Your task to perform on an android device: Open maps Image 0: 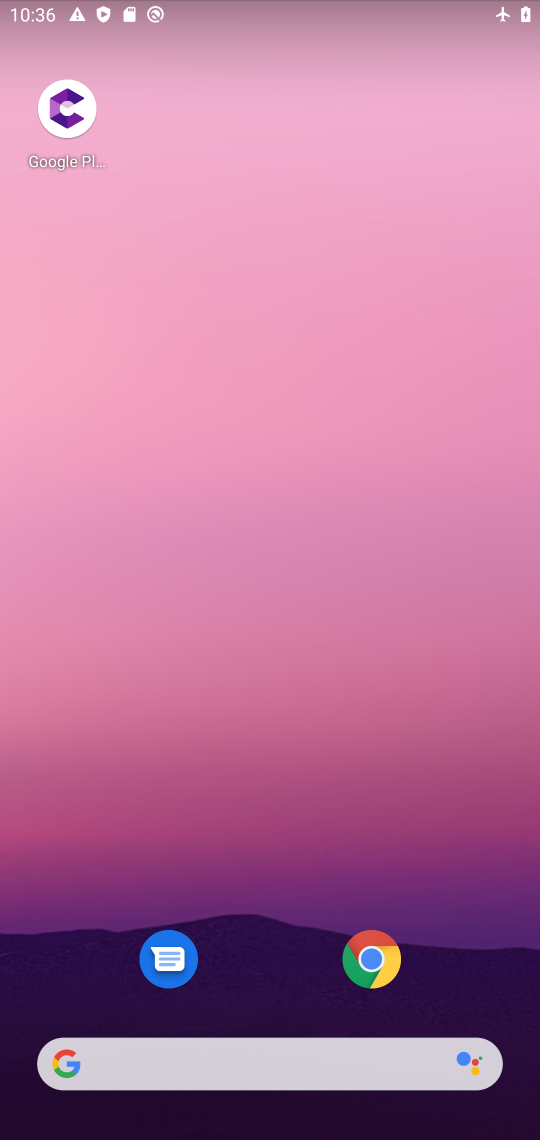
Step 0: drag from (277, 1065) to (206, 286)
Your task to perform on an android device: Open maps Image 1: 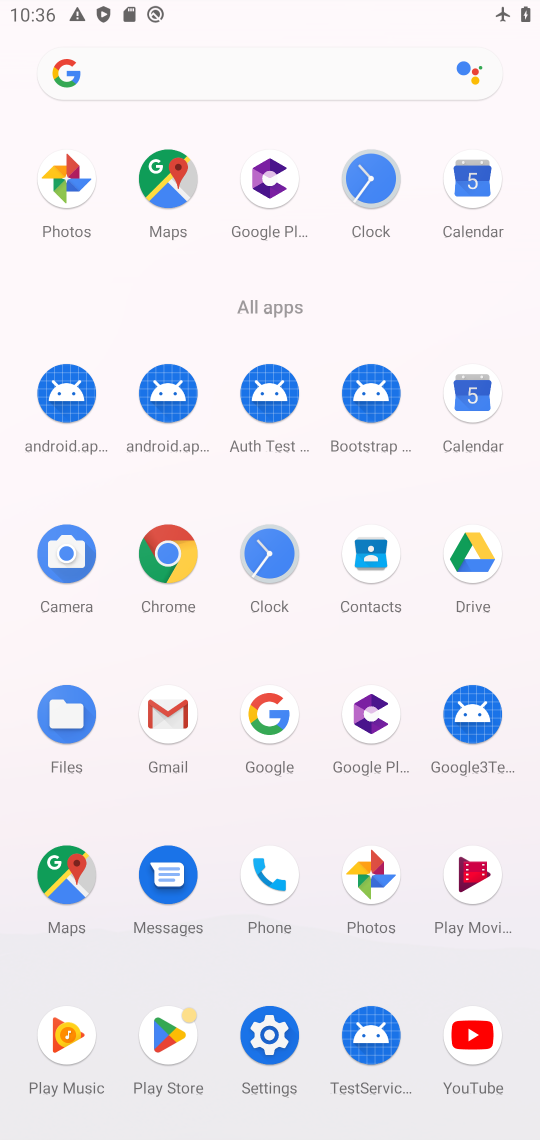
Step 1: click (53, 877)
Your task to perform on an android device: Open maps Image 2: 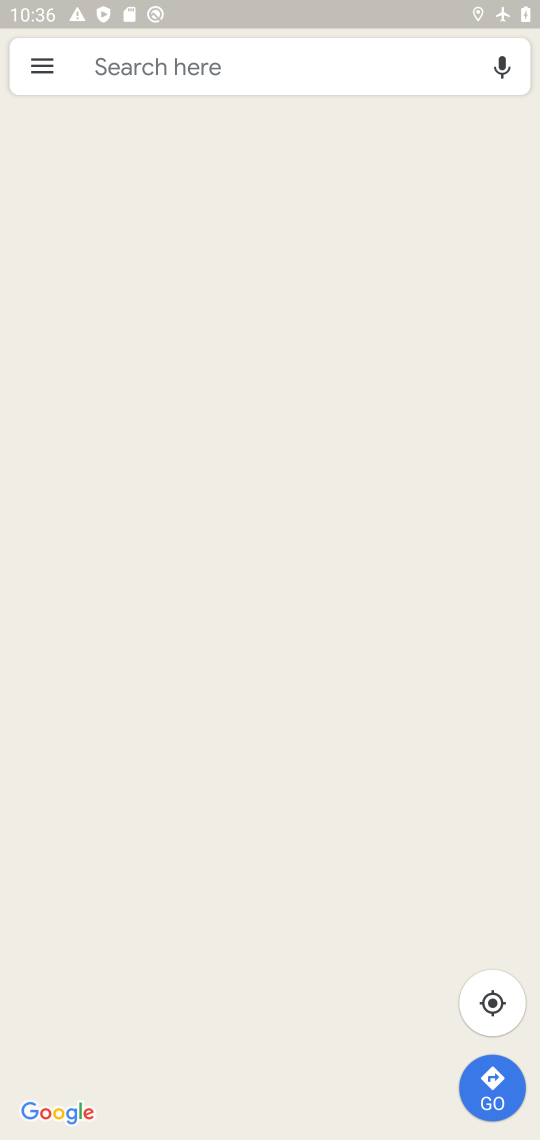
Step 2: task complete